Your task to perform on an android device: turn on improve location accuracy Image 0: 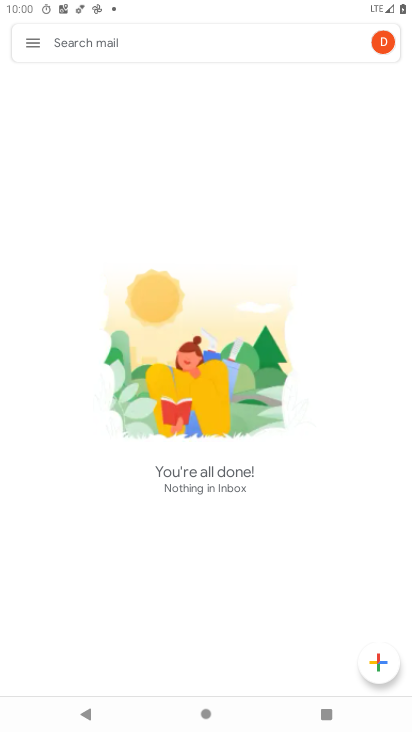
Step 0: press home button
Your task to perform on an android device: turn on improve location accuracy Image 1: 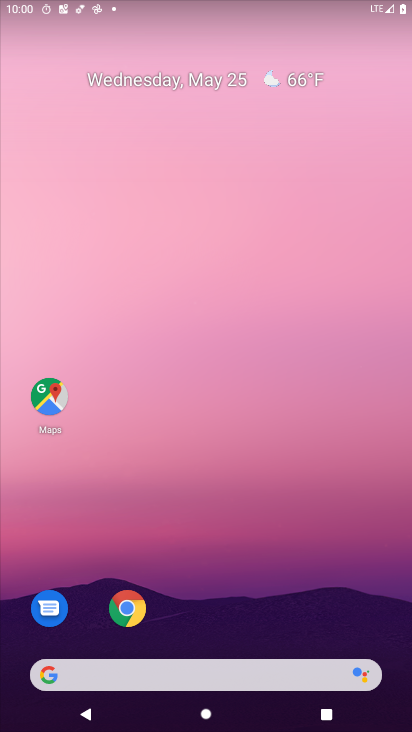
Step 1: drag from (236, 715) to (239, 47)
Your task to perform on an android device: turn on improve location accuracy Image 2: 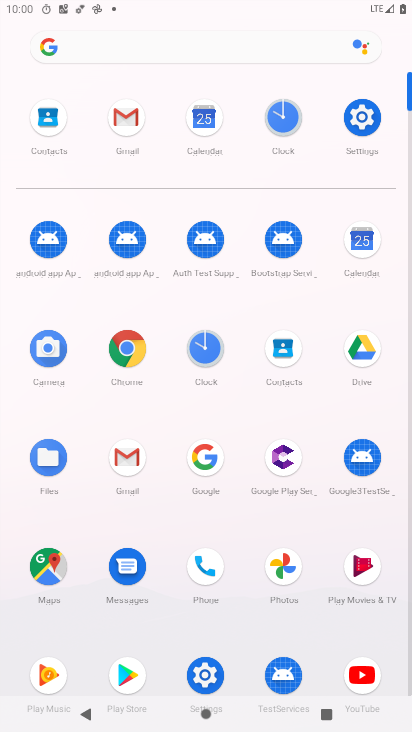
Step 2: click (367, 117)
Your task to perform on an android device: turn on improve location accuracy Image 3: 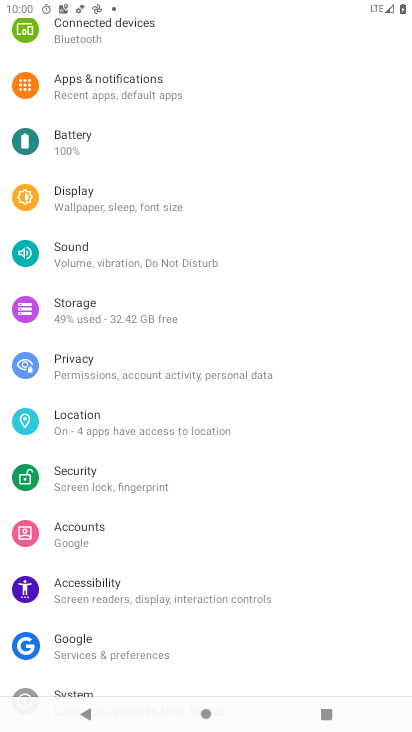
Step 3: click (84, 414)
Your task to perform on an android device: turn on improve location accuracy Image 4: 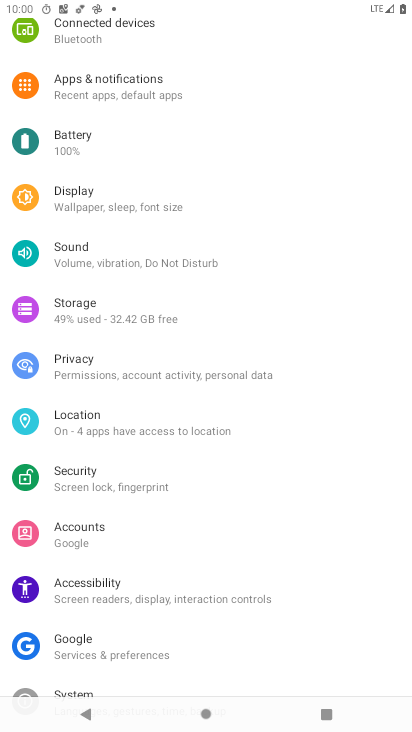
Step 4: click (102, 415)
Your task to perform on an android device: turn on improve location accuracy Image 5: 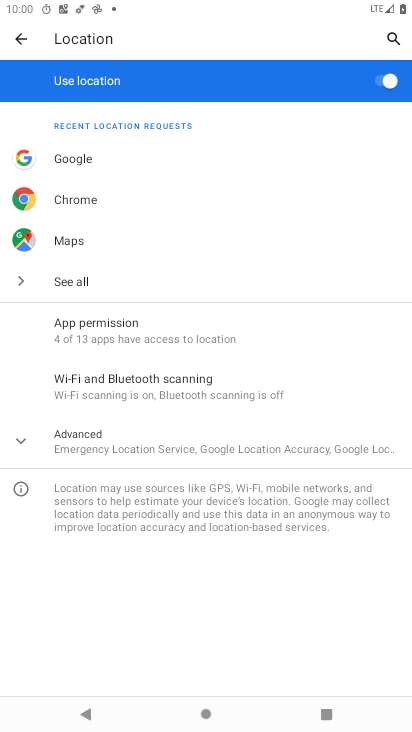
Step 5: click (80, 438)
Your task to perform on an android device: turn on improve location accuracy Image 6: 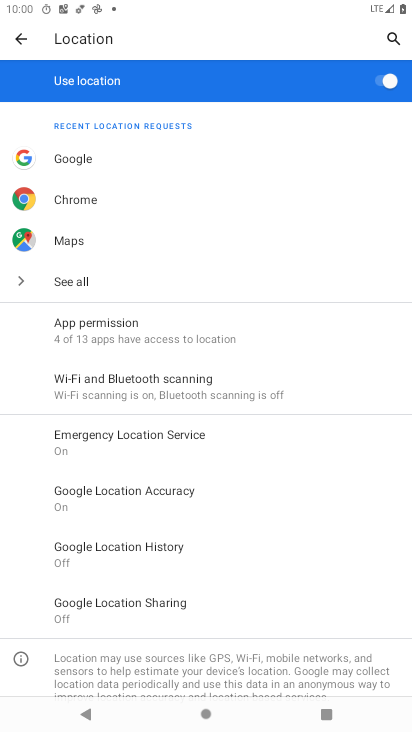
Step 6: click (131, 488)
Your task to perform on an android device: turn on improve location accuracy Image 7: 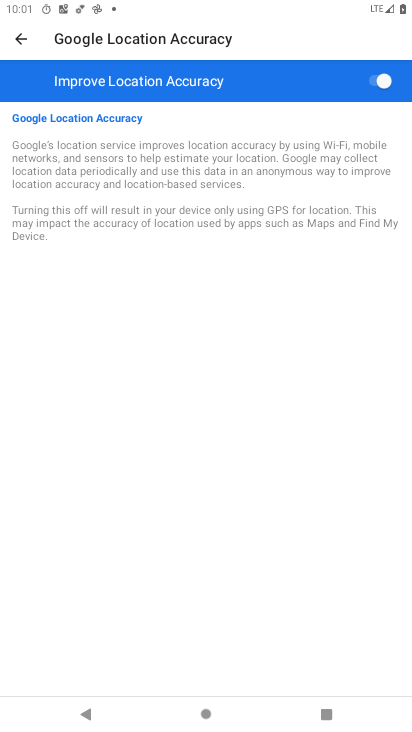
Step 7: task complete